Your task to perform on an android device: change notification settings in the gmail app Image 0: 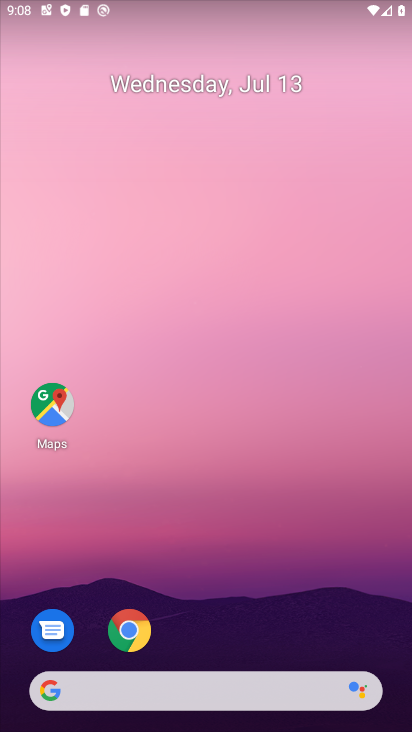
Step 0: drag from (278, 481) to (281, 357)
Your task to perform on an android device: change notification settings in the gmail app Image 1: 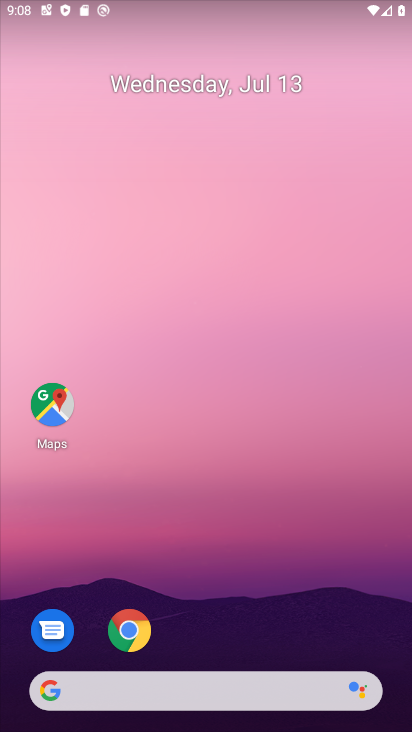
Step 1: drag from (273, 584) to (269, 141)
Your task to perform on an android device: change notification settings in the gmail app Image 2: 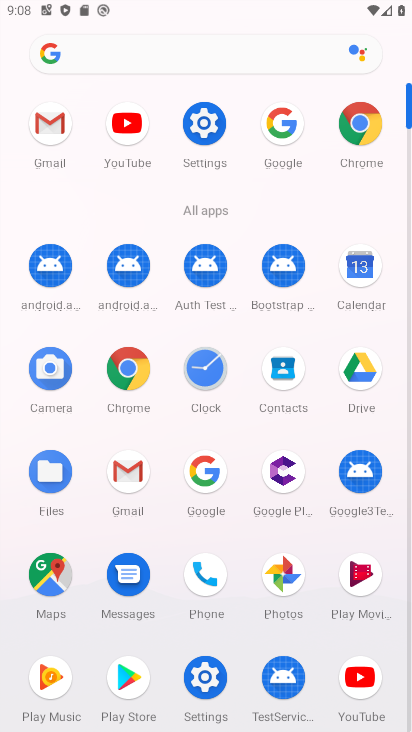
Step 2: click (53, 129)
Your task to perform on an android device: change notification settings in the gmail app Image 3: 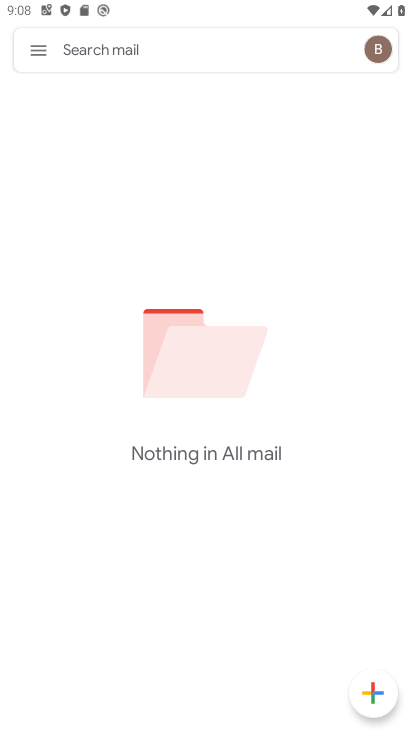
Step 3: click (42, 57)
Your task to perform on an android device: change notification settings in the gmail app Image 4: 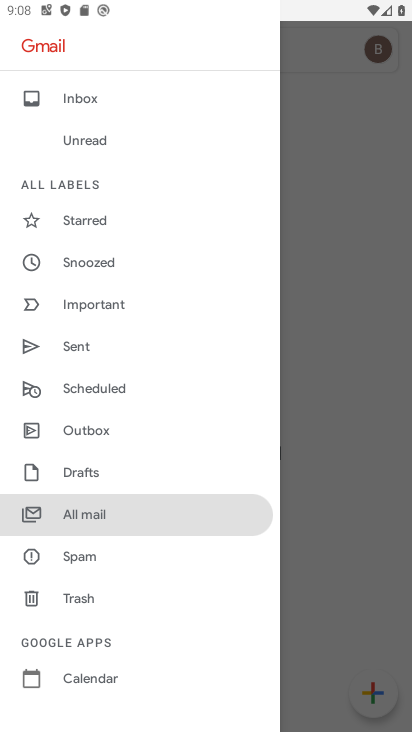
Step 4: drag from (136, 699) to (140, 125)
Your task to perform on an android device: change notification settings in the gmail app Image 5: 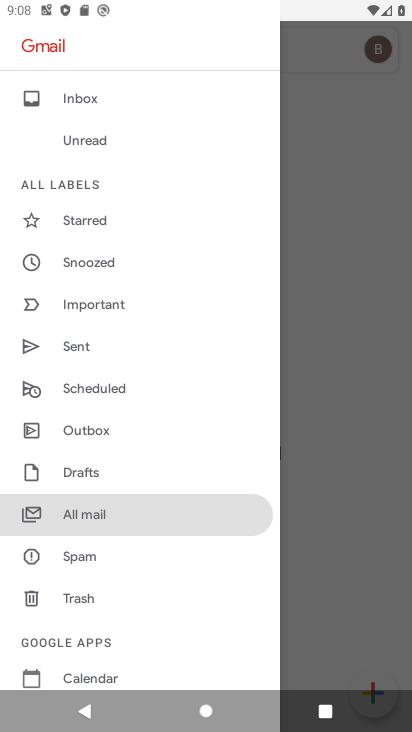
Step 5: drag from (114, 501) to (164, 299)
Your task to perform on an android device: change notification settings in the gmail app Image 6: 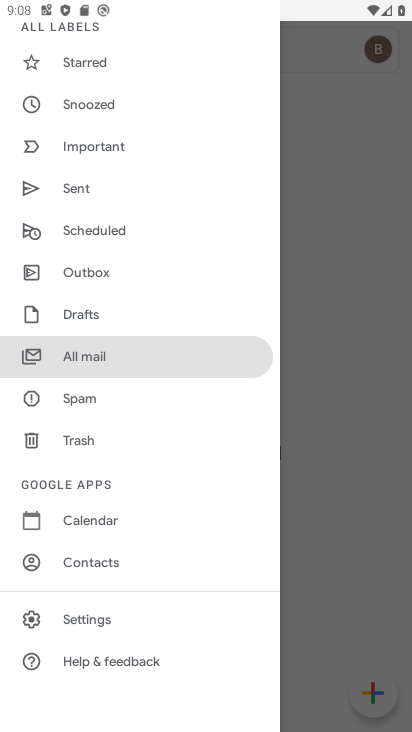
Step 6: click (84, 610)
Your task to perform on an android device: change notification settings in the gmail app Image 7: 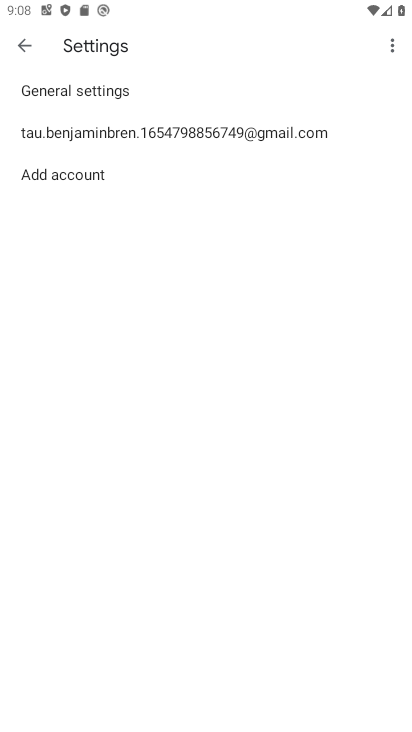
Step 7: click (199, 150)
Your task to perform on an android device: change notification settings in the gmail app Image 8: 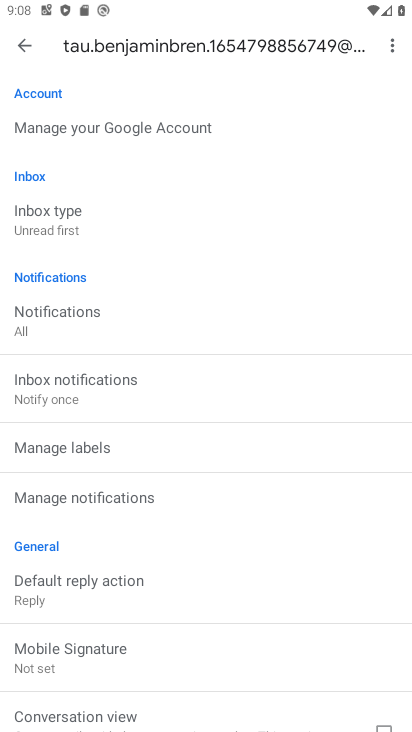
Step 8: click (129, 494)
Your task to perform on an android device: change notification settings in the gmail app Image 9: 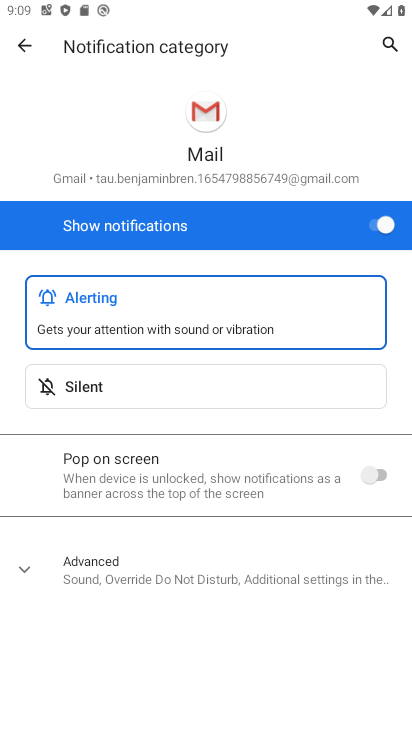
Step 9: click (376, 228)
Your task to perform on an android device: change notification settings in the gmail app Image 10: 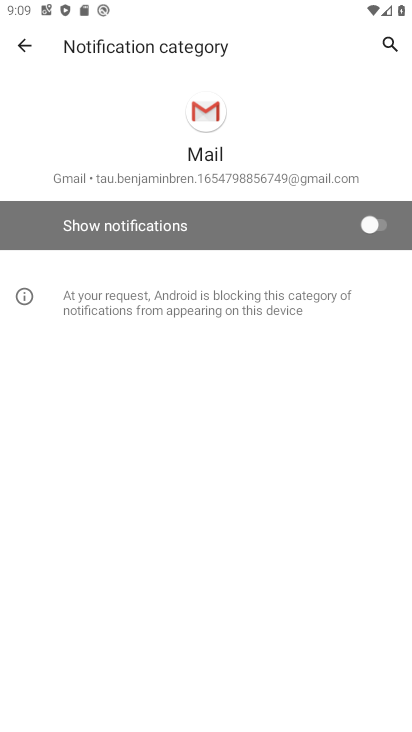
Step 10: task complete